Your task to perform on an android device: Show me the alarms in the clock app Image 0: 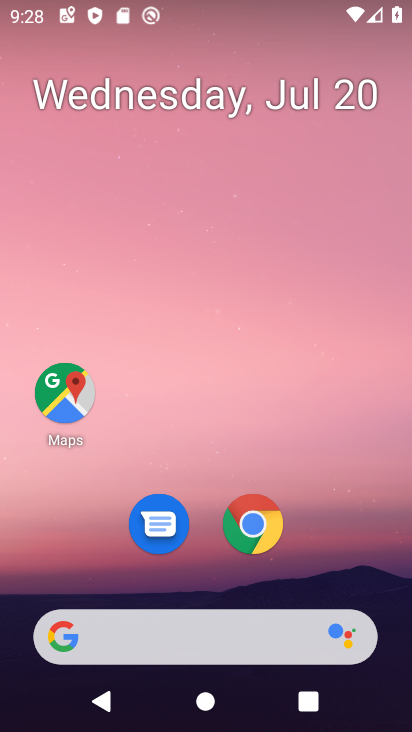
Step 0: press home button
Your task to perform on an android device: Show me the alarms in the clock app Image 1: 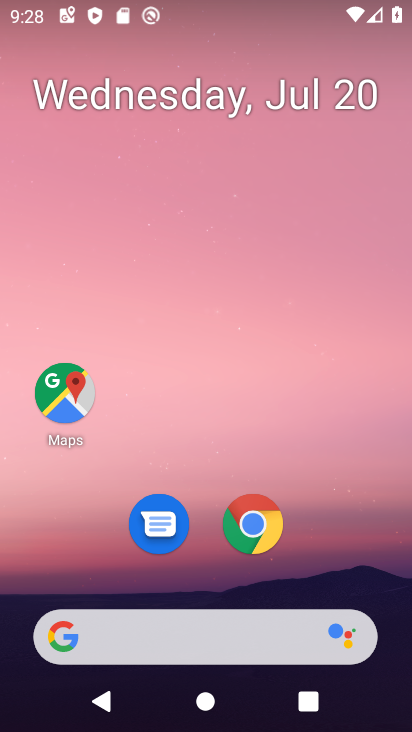
Step 1: drag from (195, 628) to (300, 128)
Your task to perform on an android device: Show me the alarms in the clock app Image 2: 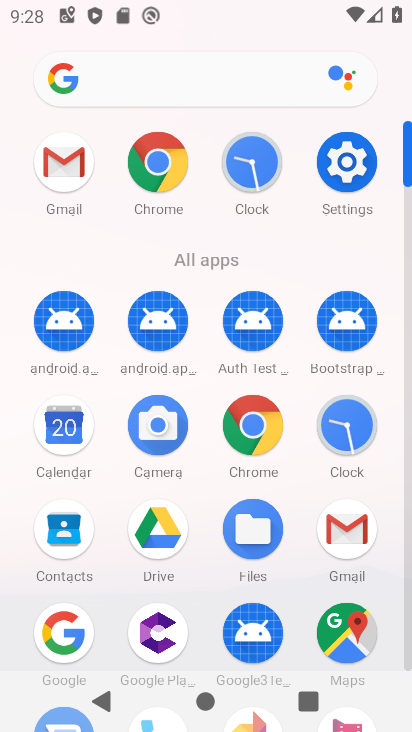
Step 2: click (255, 174)
Your task to perform on an android device: Show me the alarms in the clock app Image 3: 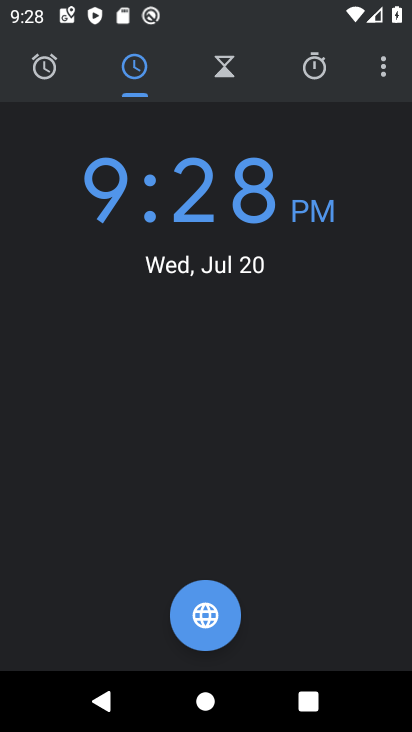
Step 3: click (31, 66)
Your task to perform on an android device: Show me the alarms in the clock app Image 4: 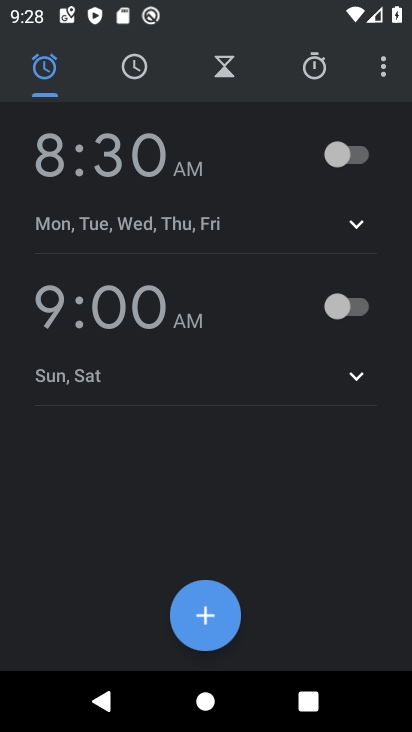
Step 4: task complete